Your task to perform on an android device: Open my contact list Image 0: 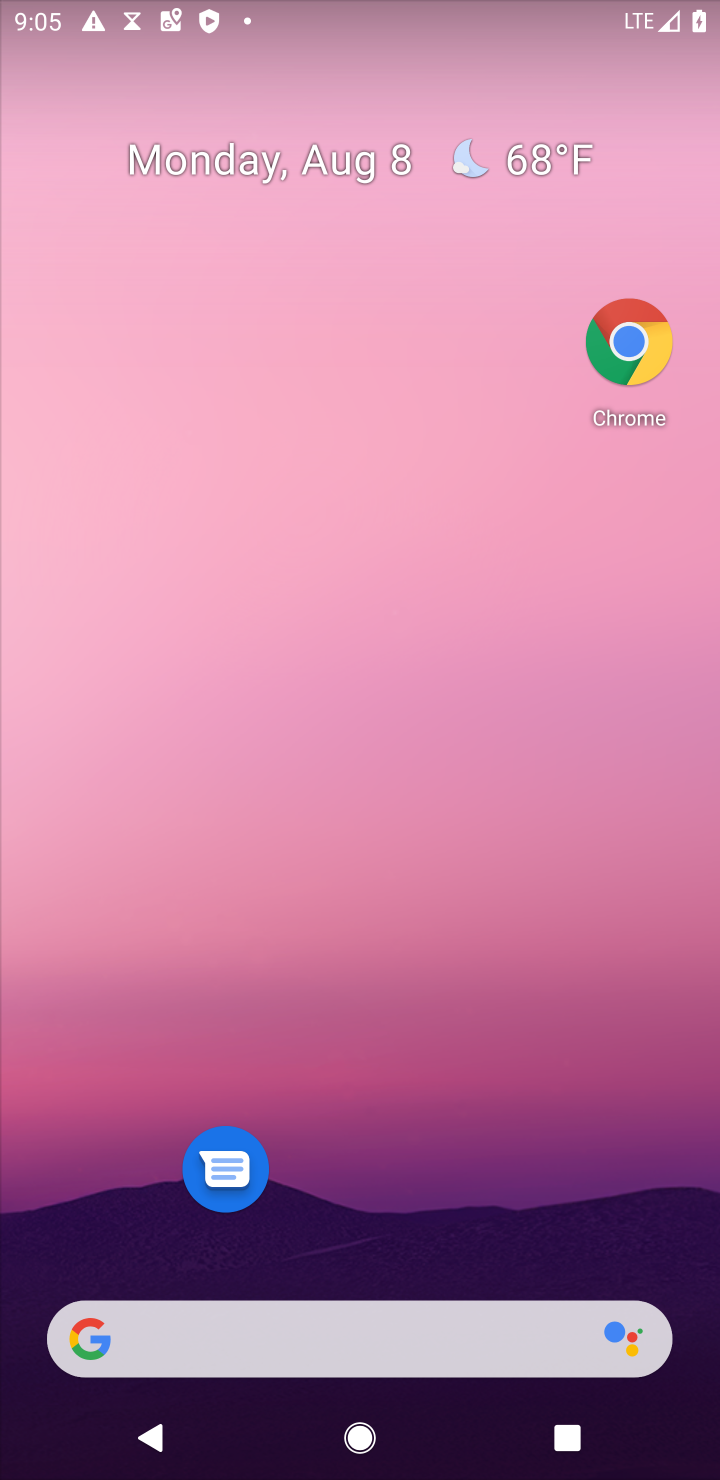
Step 0: press back button
Your task to perform on an android device: Open my contact list Image 1: 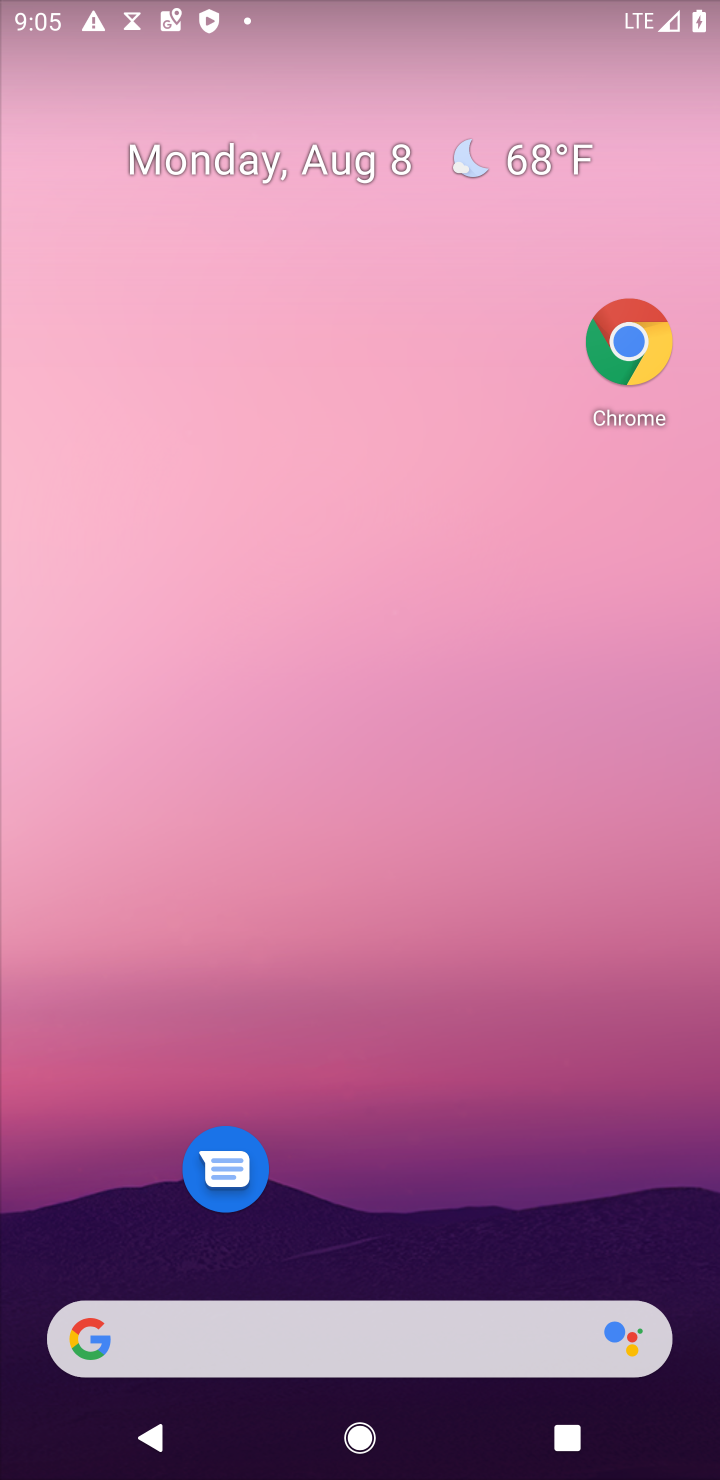
Step 1: drag from (377, 1164) to (505, 110)
Your task to perform on an android device: Open my contact list Image 2: 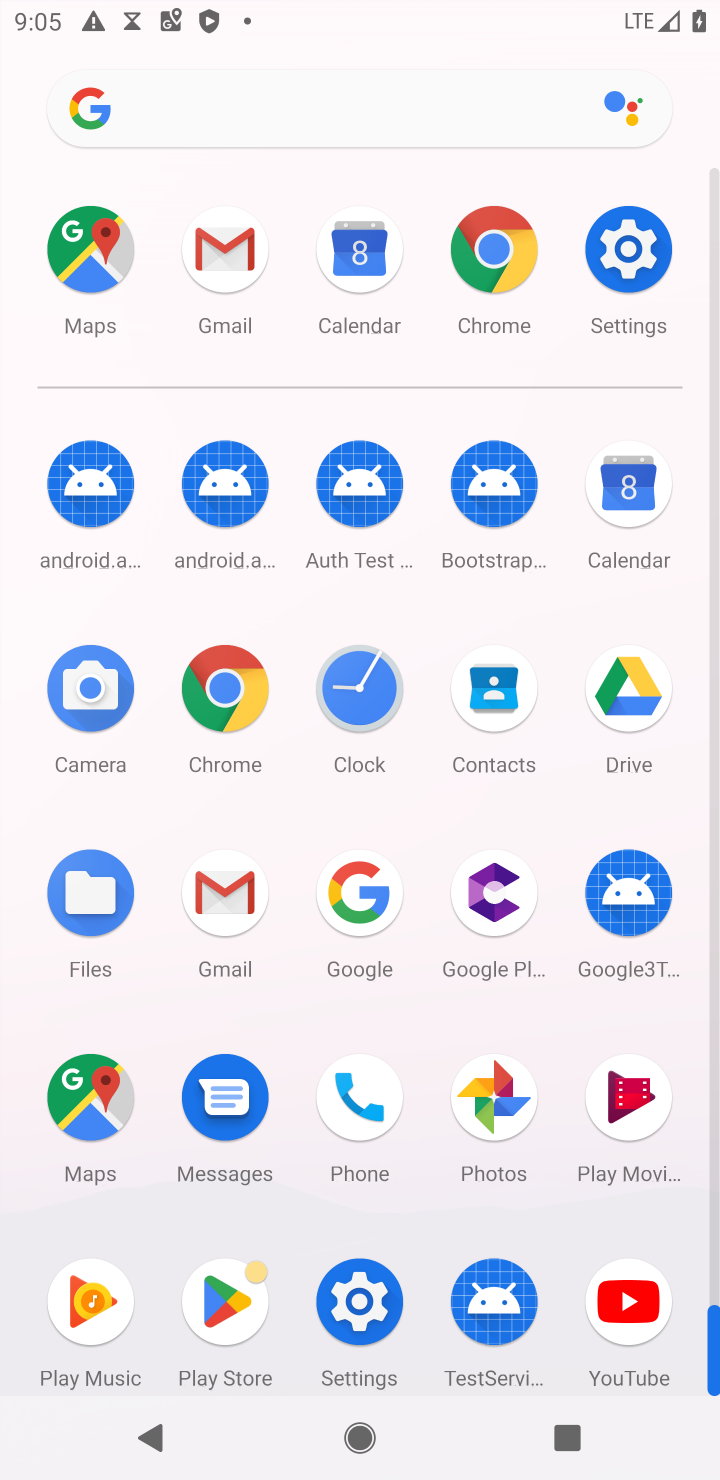
Step 2: click (495, 744)
Your task to perform on an android device: Open my contact list Image 3: 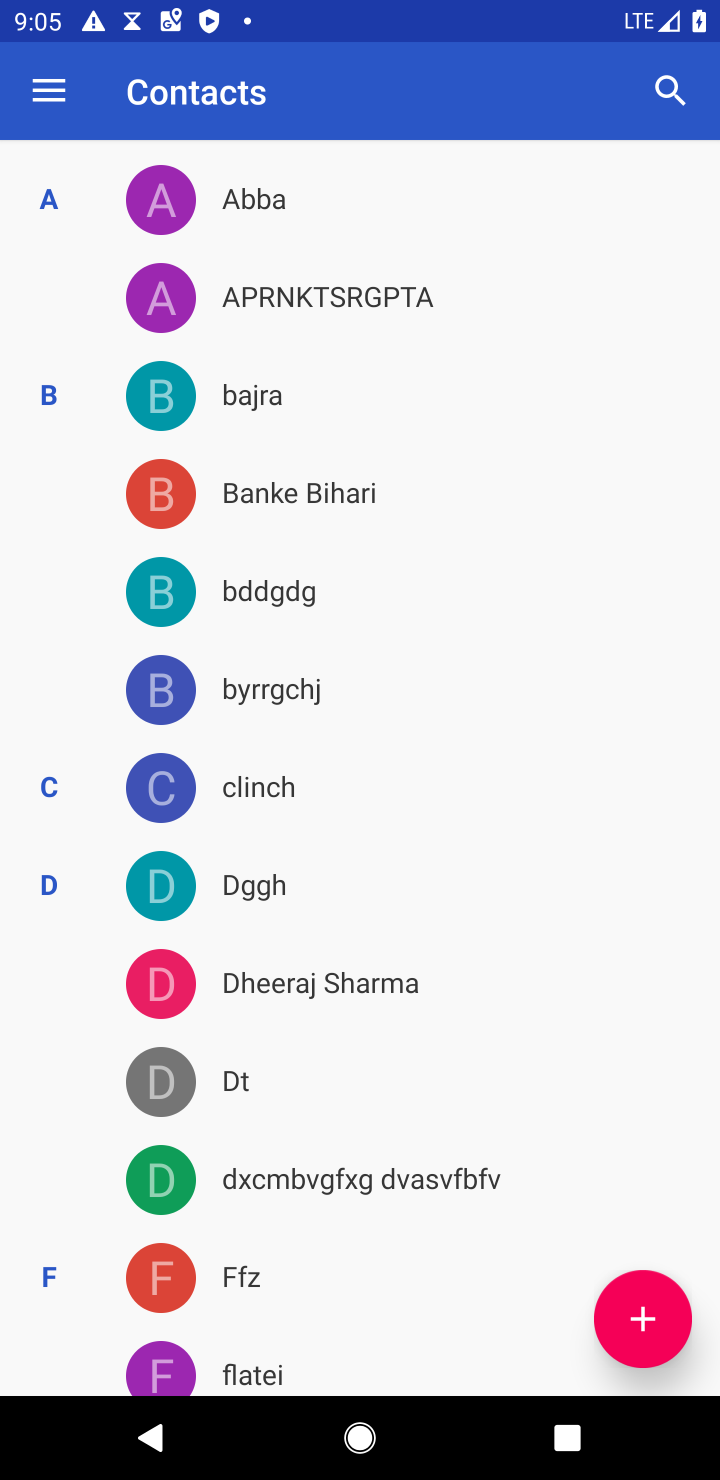
Step 3: task complete